Your task to perform on an android device: View the shopping cart on bestbuy. Add logitech g933 to the cart on bestbuy, then select checkout. Image 0: 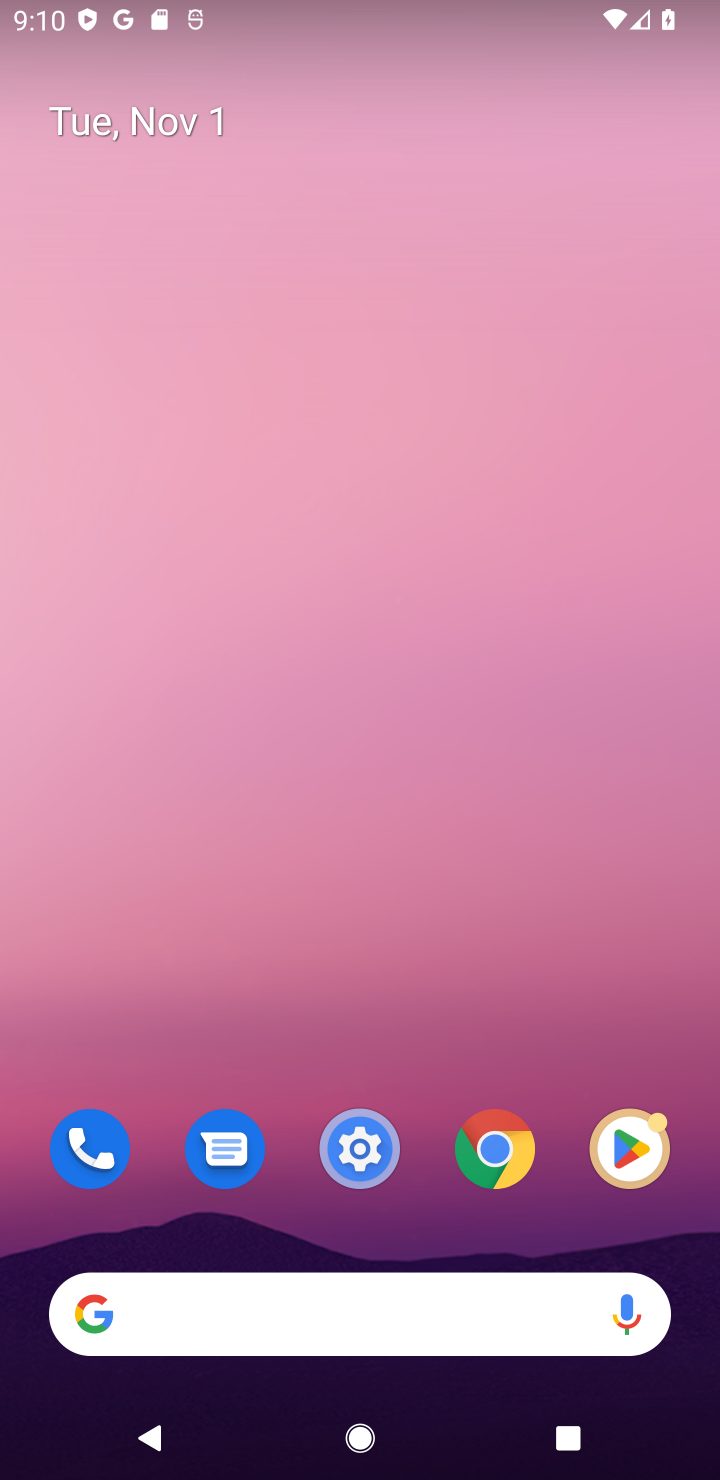
Step 0: press home button
Your task to perform on an android device: View the shopping cart on bestbuy. Add logitech g933 to the cart on bestbuy, then select checkout. Image 1: 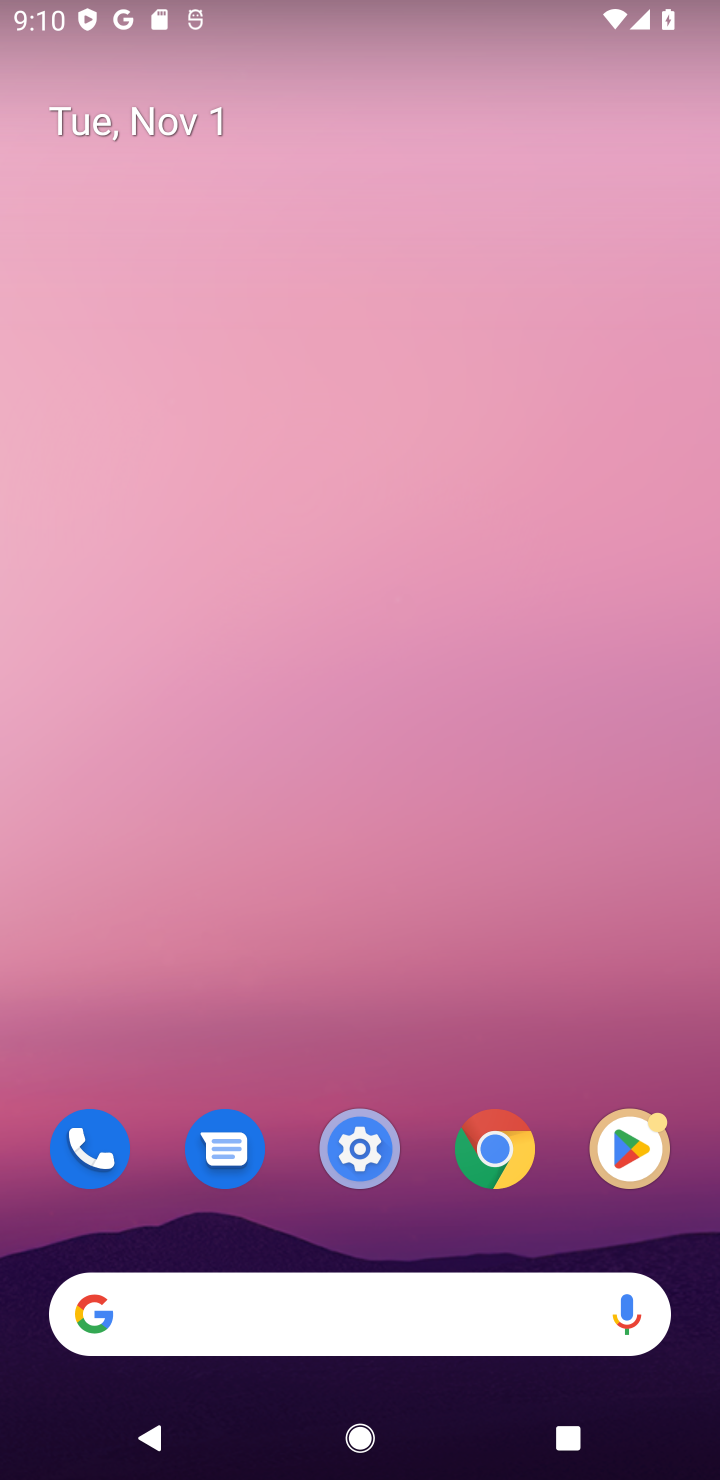
Step 1: click (132, 1308)
Your task to perform on an android device: View the shopping cart on bestbuy. Add logitech g933 to the cart on bestbuy, then select checkout. Image 2: 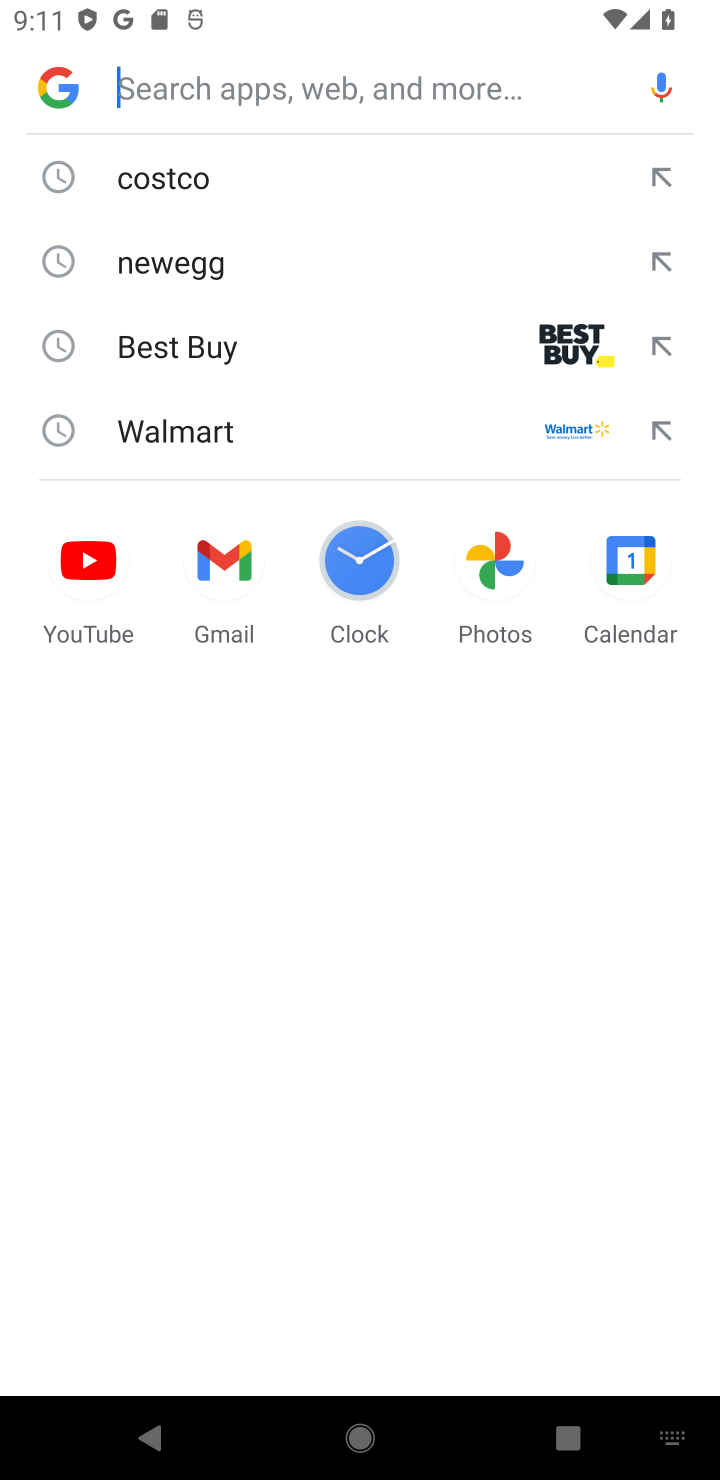
Step 2: type "bestbuy"
Your task to perform on an android device: View the shopping cart on bestbuy. Add logitech g933 to the cart on bestbuy, then select checkout. Image 3: 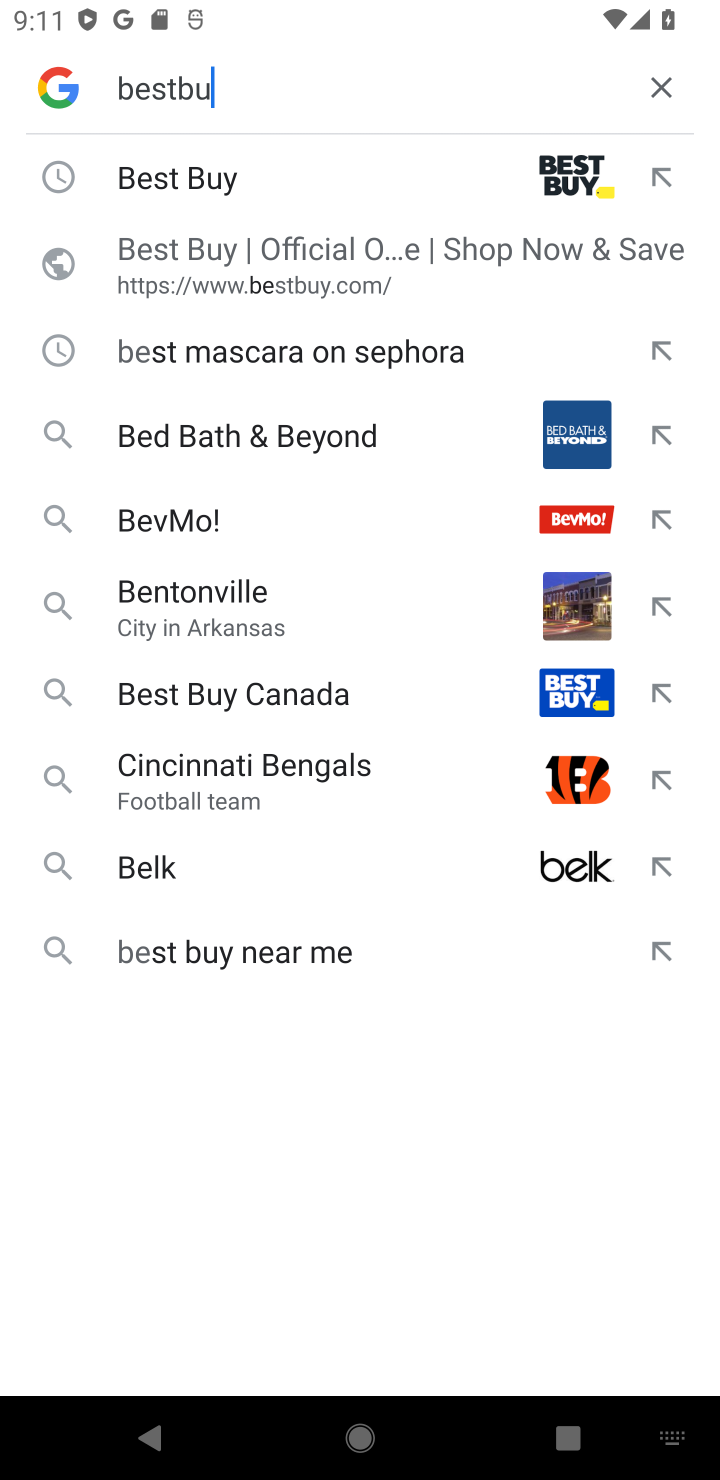
Step 3: press enter
Your task to perform on an android device: View the shopping cart on bestbuy. Add logitech g933 to the cart on bestbuy, then select checkout. Image 4: 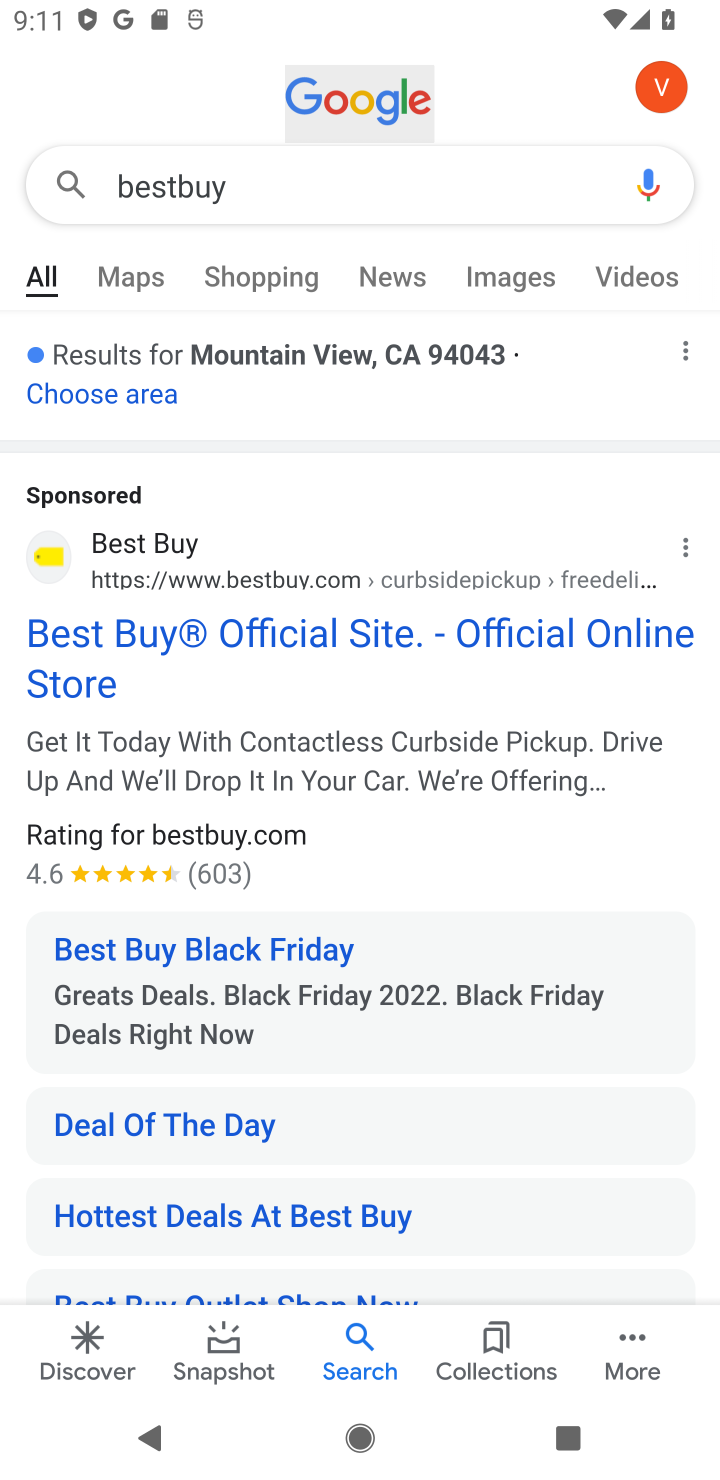
Step 4: click (259, 637)
Your task to perform on an android device: View the shopping cart on bestbuy. Add logitech g933 to the cart on bestbuy, then select checkout. Image 5: 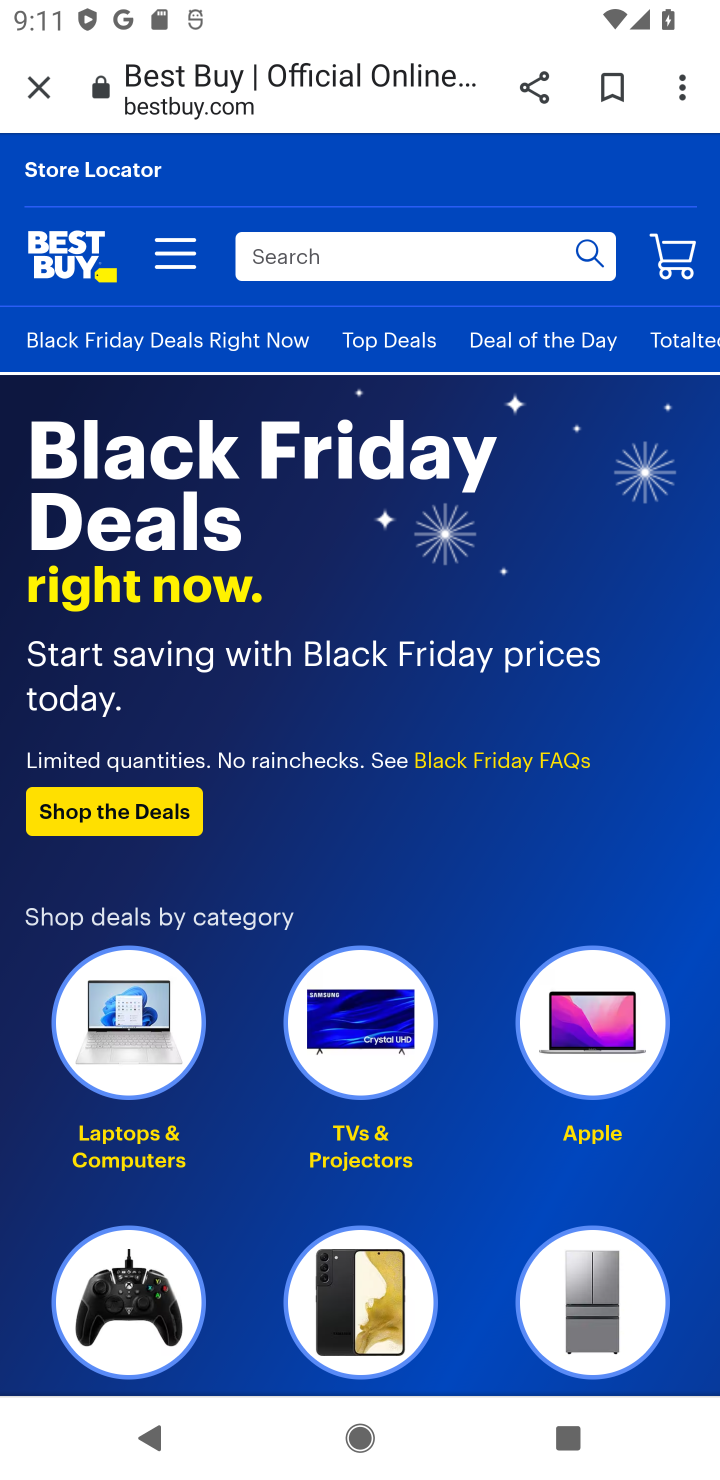
Step 5: click (663, 242)
Your task to perform on an android device: View the shopping cart on bestbuy. Add logitech g933 to the cart on bestbuy, then select checkout. Image 6: 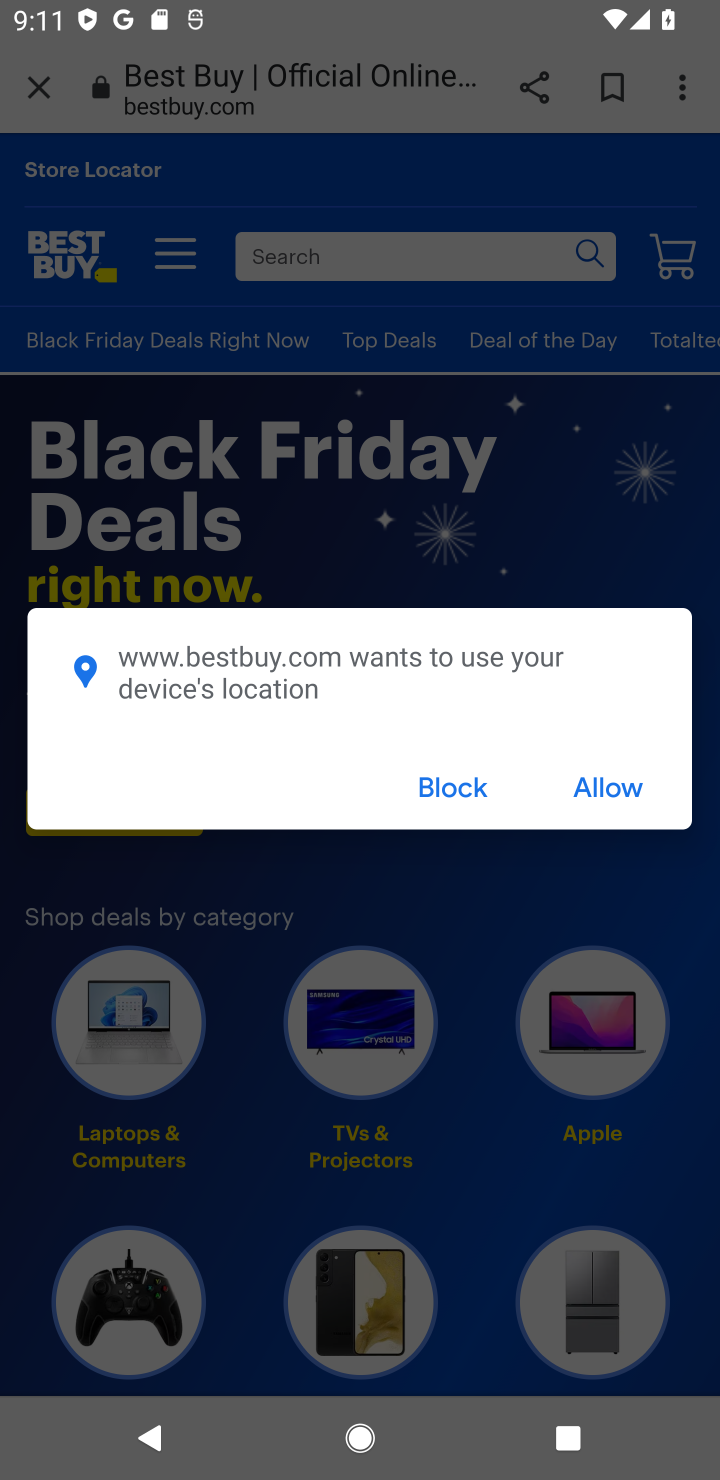
Step 6: click (452, 782)
Your task to perform on an android device: View the shopping cart on bestbuy. Add logitech g933 to the cart on bestbuy, then select checkout. Image 7: 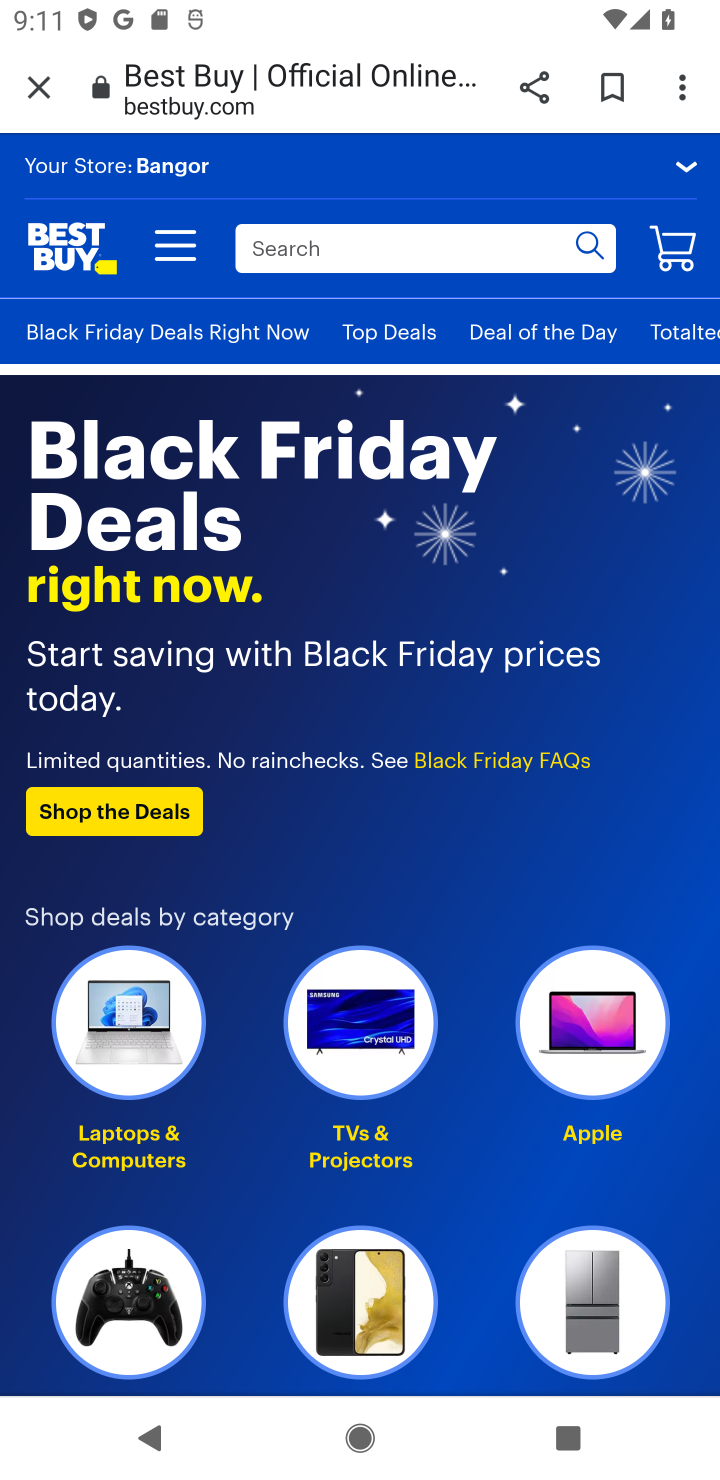
Step 7: click (294, 241)
Your task to perform on an android device: View the shopping cart on bestbuy. Add logitech g933 to the cart on bestbuy, then select checkout. Image 8: 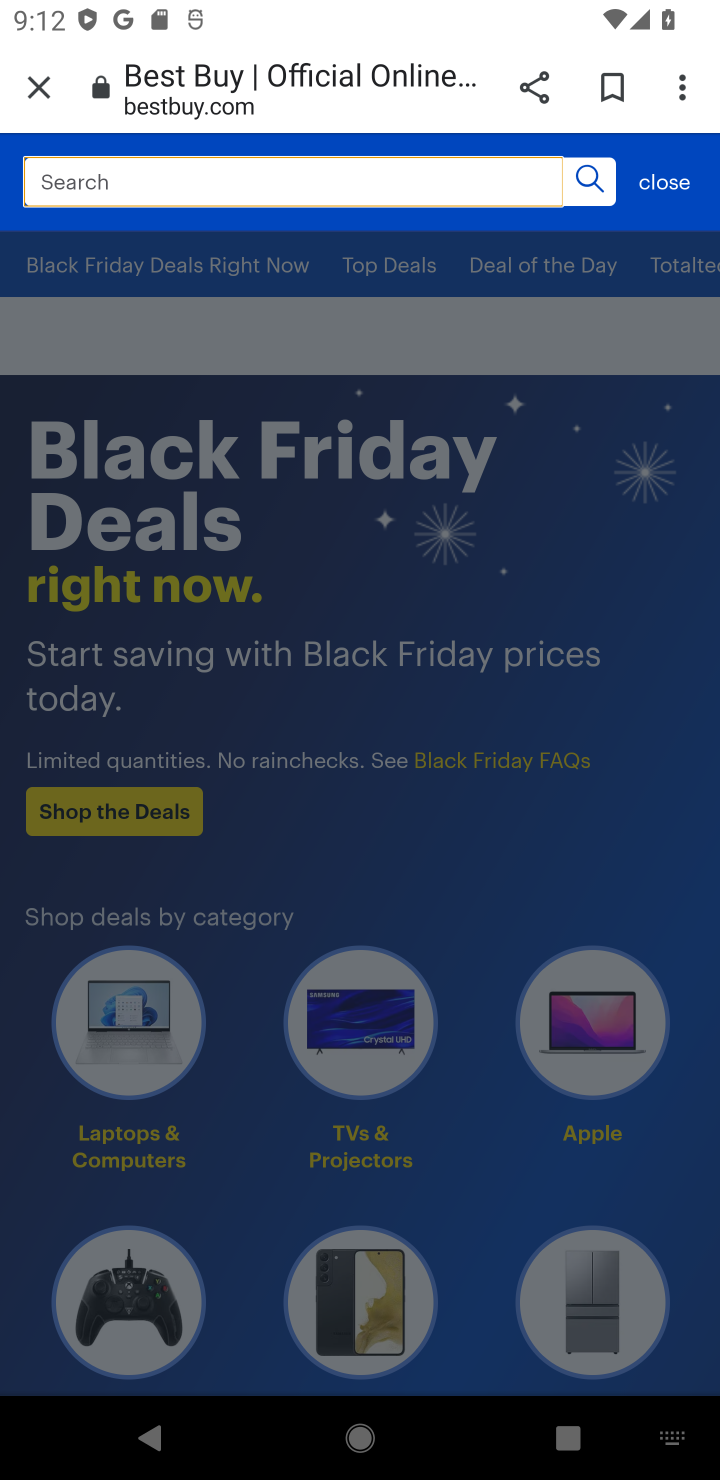
Step 8: type "logitech g933"
Your task to perform on an android device: View the shopping cart on bestbuy. Add logitech g933 to the cart on bestbuy, then select checkout. Image 9: 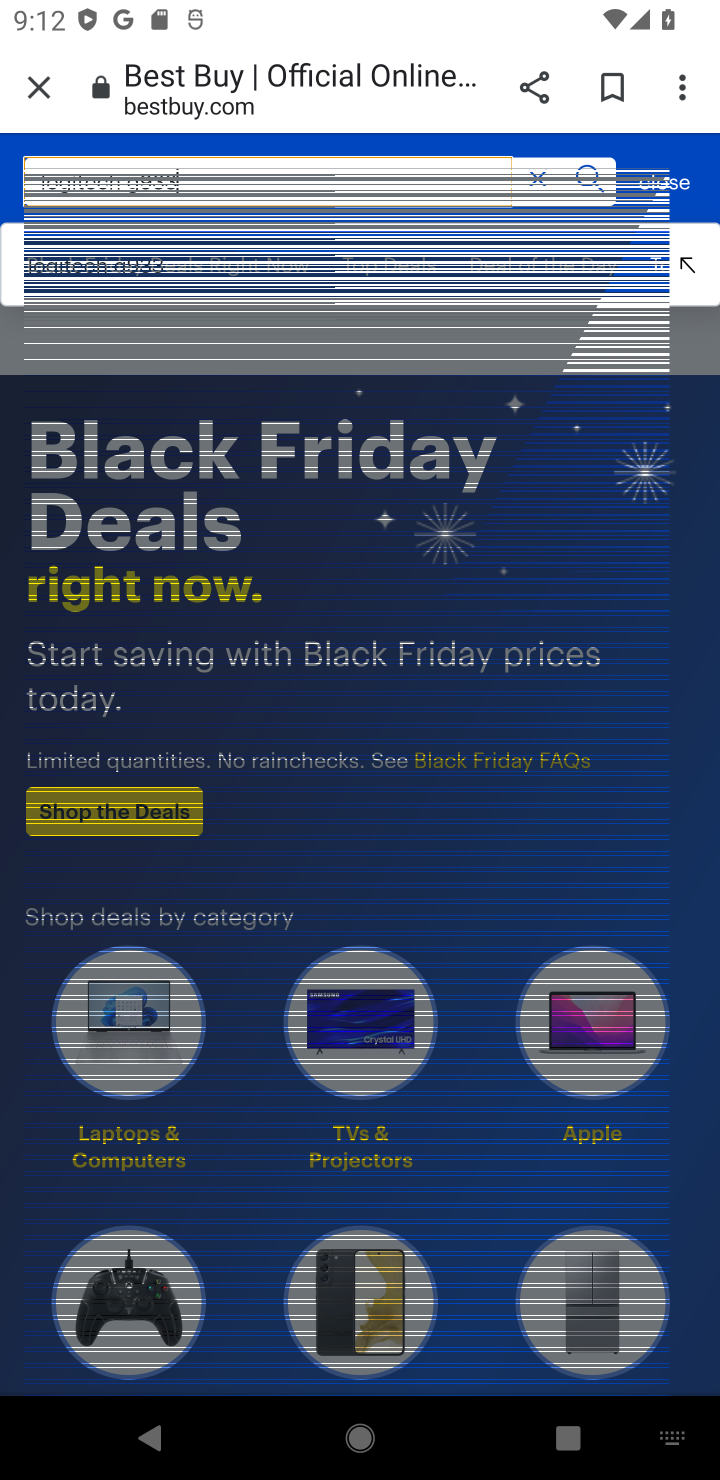
Step 9: press enter
Your task to perform on an android device: View the shopping cart on bestbuy. Add logitech g933 to the cart on bestbuy, then select checkout. Image 10: 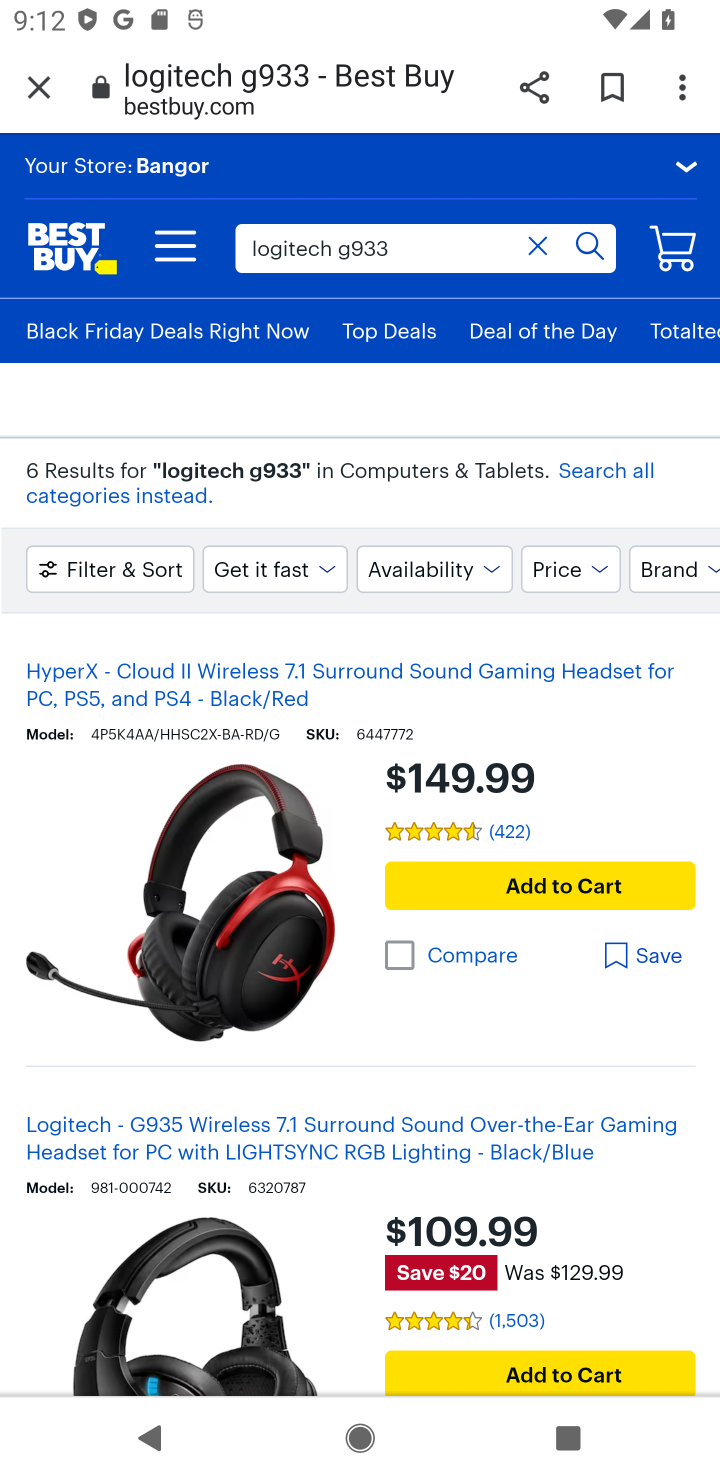
Step 10: task complete